Your task to perform on an android device: change the clock display to show seconds Image 0: 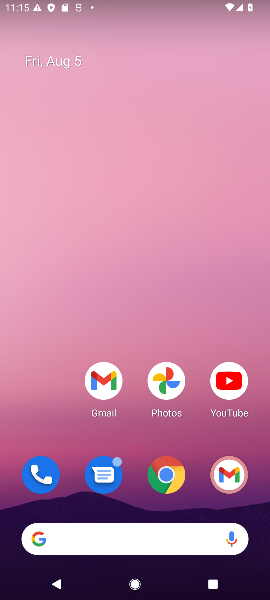
Step 0: drag from (132, 500) to (269, 62)
Your task to perform on an android device: change the clock display to show seconds Image 1: 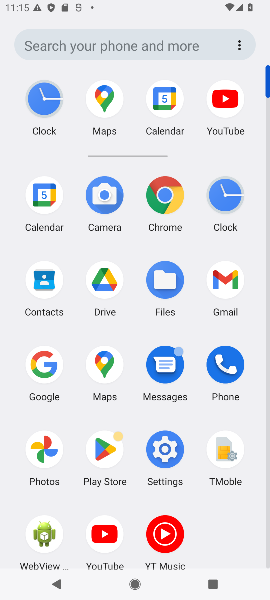
Step 1: click (227, 200)
Your task to perform on an android device: change the clock display to show seconds Image 2: 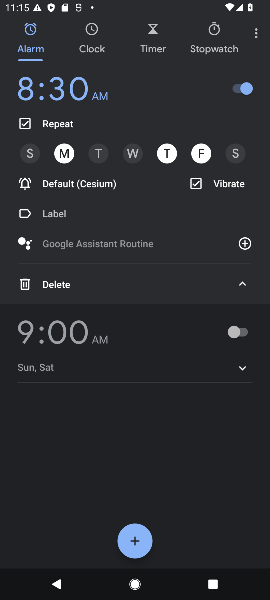
Step 2: click (257, 34)
Your task to perform on an android device: change the clock display to show seconds Image 3: 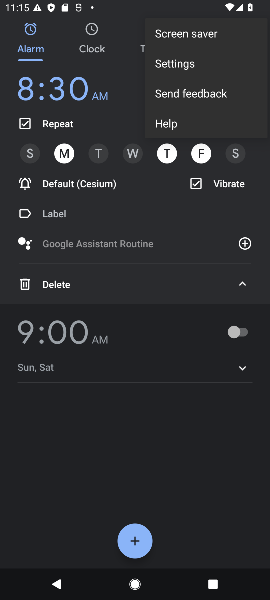
Step 3: click (170, 67)
Your task to perform on an android device: change the clock display to show seconds Image 4: 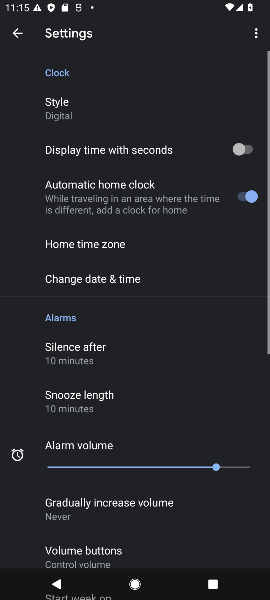
Step 4: click (55, 118)
Your task to perform on an android device: change the clock display to show seconds Image 5: 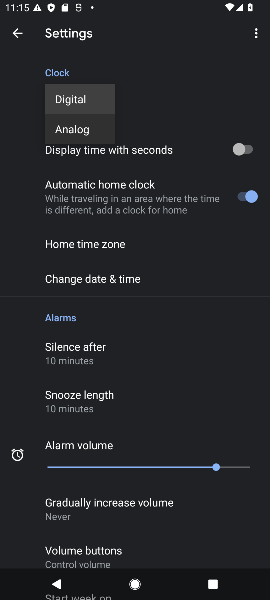
Step 5: click (87, 133)
Your task to perform on an android device: change the clock display to show seconds Image 6: 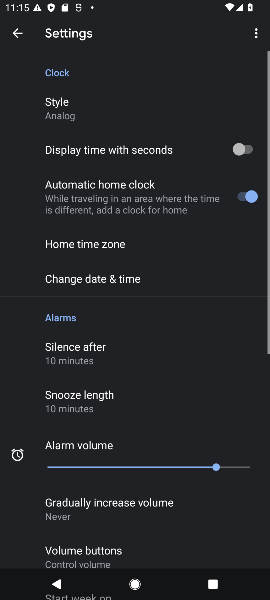
Step 6: click (215, 154)
Your task to perform on an android device: change the clock display to show seconds Image 7: 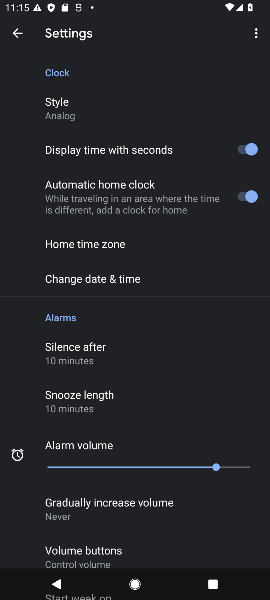
Step 7: task complete